Your task to perform on an android device: What's the weather going to be this weekend? Image 0: 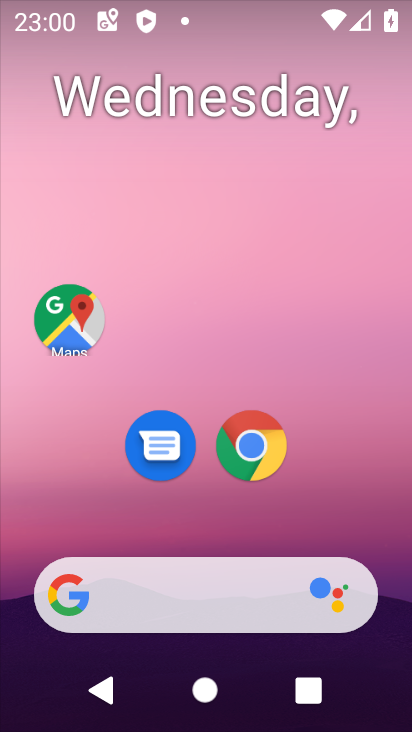
Step 0: drag from (330, 521) to (279, 210)
Your task to perform on an android device: What's the weather going to be this weekend? Image 1: 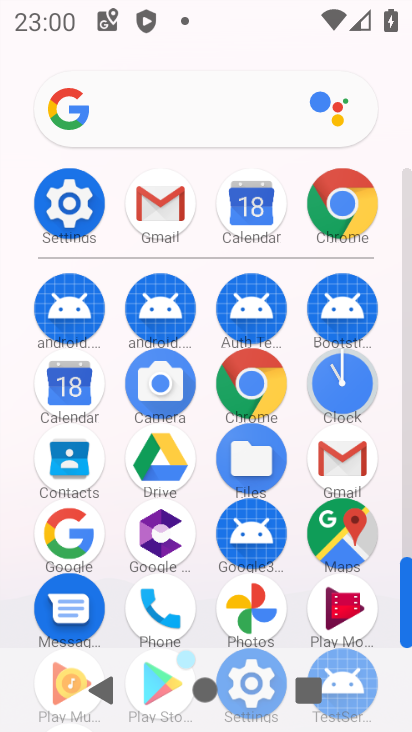
Step 1: click (82, 382)
Your task to perform on an android device: What's the weather going to be this weekend? Image 2: 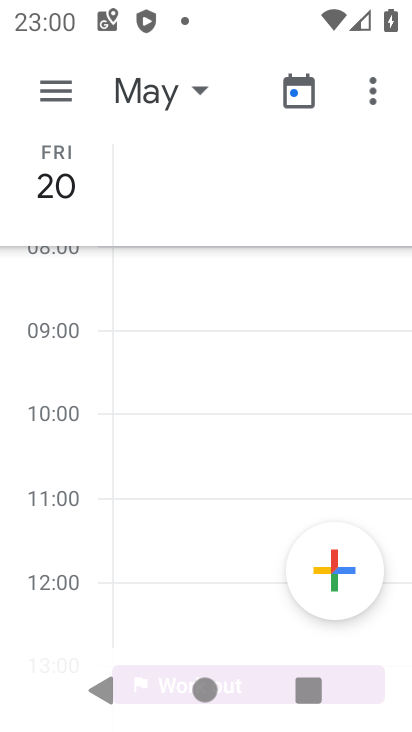
Step 2: click (54, 77)
Your task to perform on an android device: What's the weather going to be this weekend? Image 3: 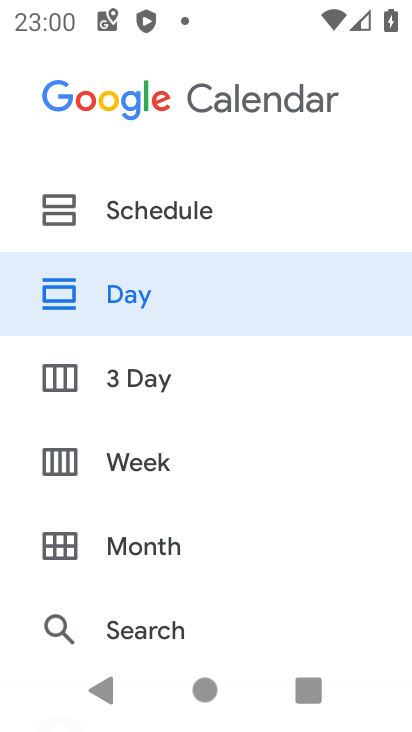
Step 3: press home button
Your task to perform on an android device: What's the weather going to be this weekend? Image 4: 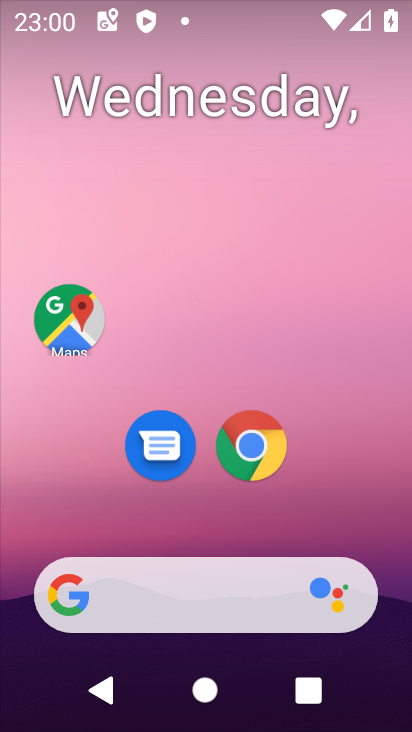
Step 4: click (252, 451)
Your task to perform on an android device: What's the weather going to be this weekend? Image 5: 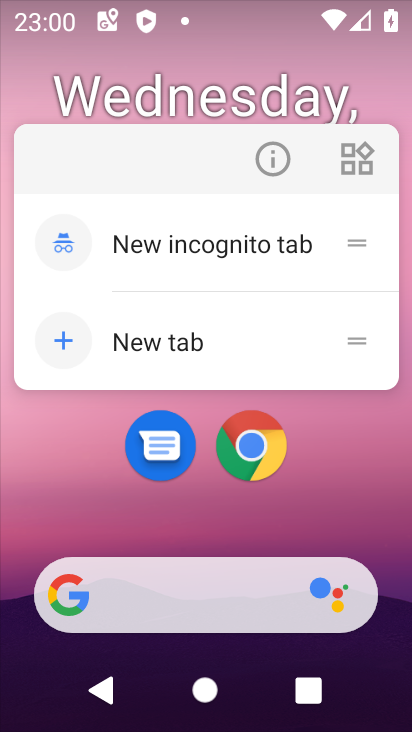
Step 5: click (253, 449)
Your task to perform on an android device: What's the weather going to be this weekend? Image 6: 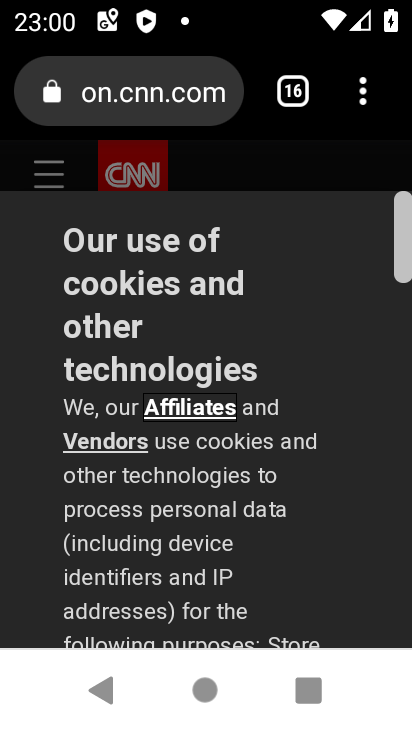
Step 6: click (373, 95)
Your task to perform on an android device: What's the weather going to be this weekend? Image 7: 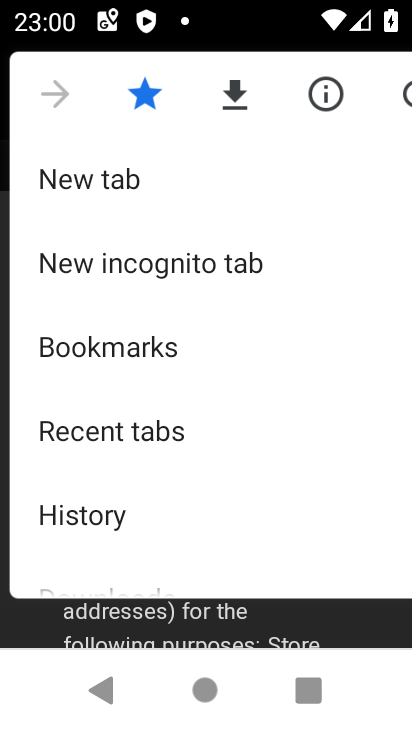
Step 7: click (101, 188)
Your task to perform on an android device: What's the weather going to be this weekend? Image 8: 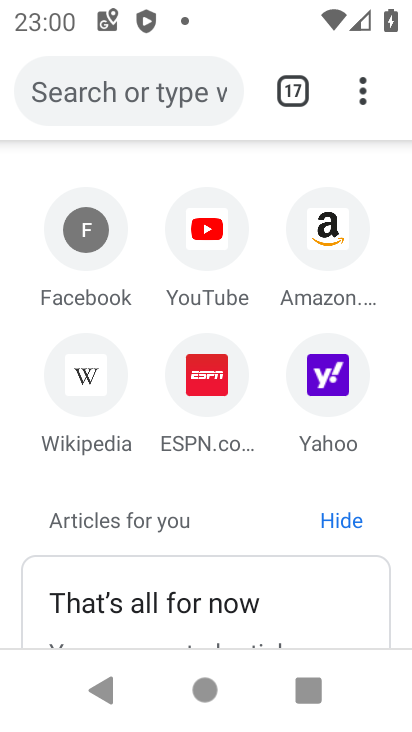
Step 8: click (113, 90)
Your task to perform on an android device: What's the weather going to be this weekend? Image 9: 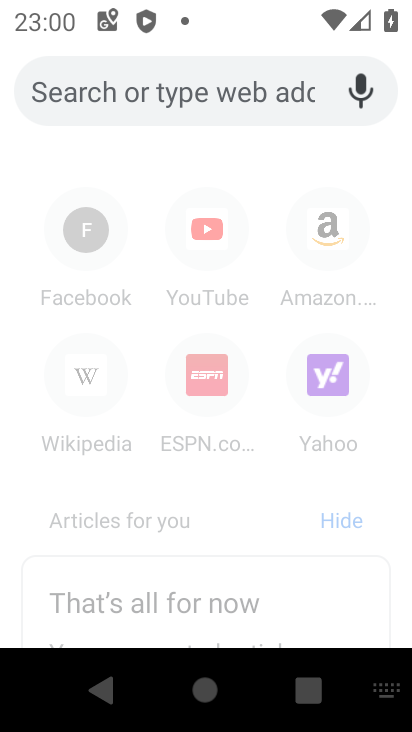
Step 9: type "What's the weather going to be this weekend?"
Your task to perform on an android device: What's the weather going to be this weekend? Image 10: 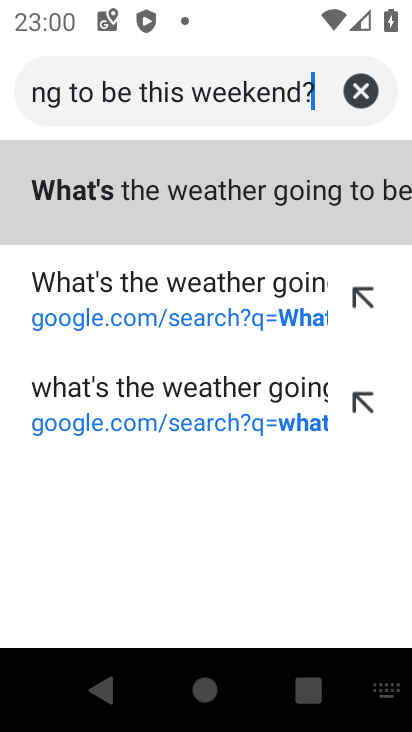
Step 10: click (98, 179)
Your task to perform on an android device: What's the weather going to be this weekend? Image 11: 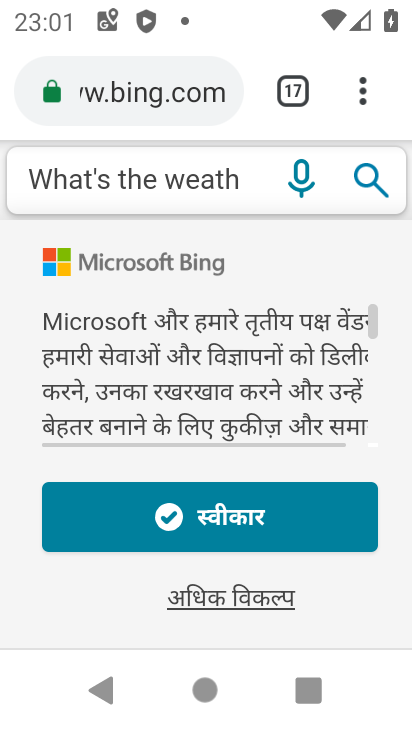
Step 11: click (267, 487)
Your task to perform on an android device: What's the weather going to be this weekend? Image 12: 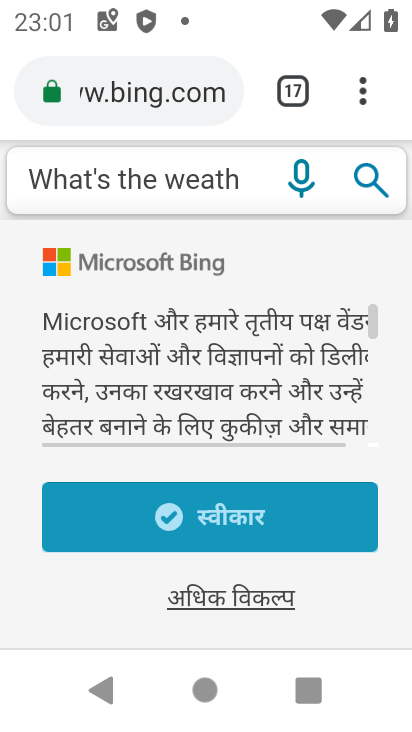
Step 12: click (269, 496)
Your task to perform on an android device: What's the weather going to be this weekend? Image 13: 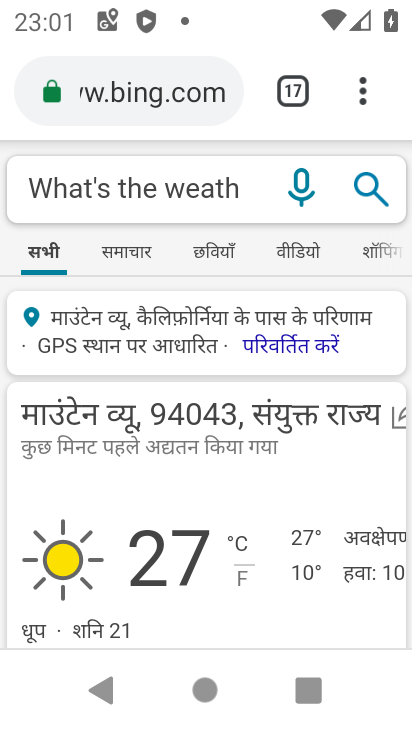
Step 13: task complete